Your task to perform on an android device: Open settings Image 0: 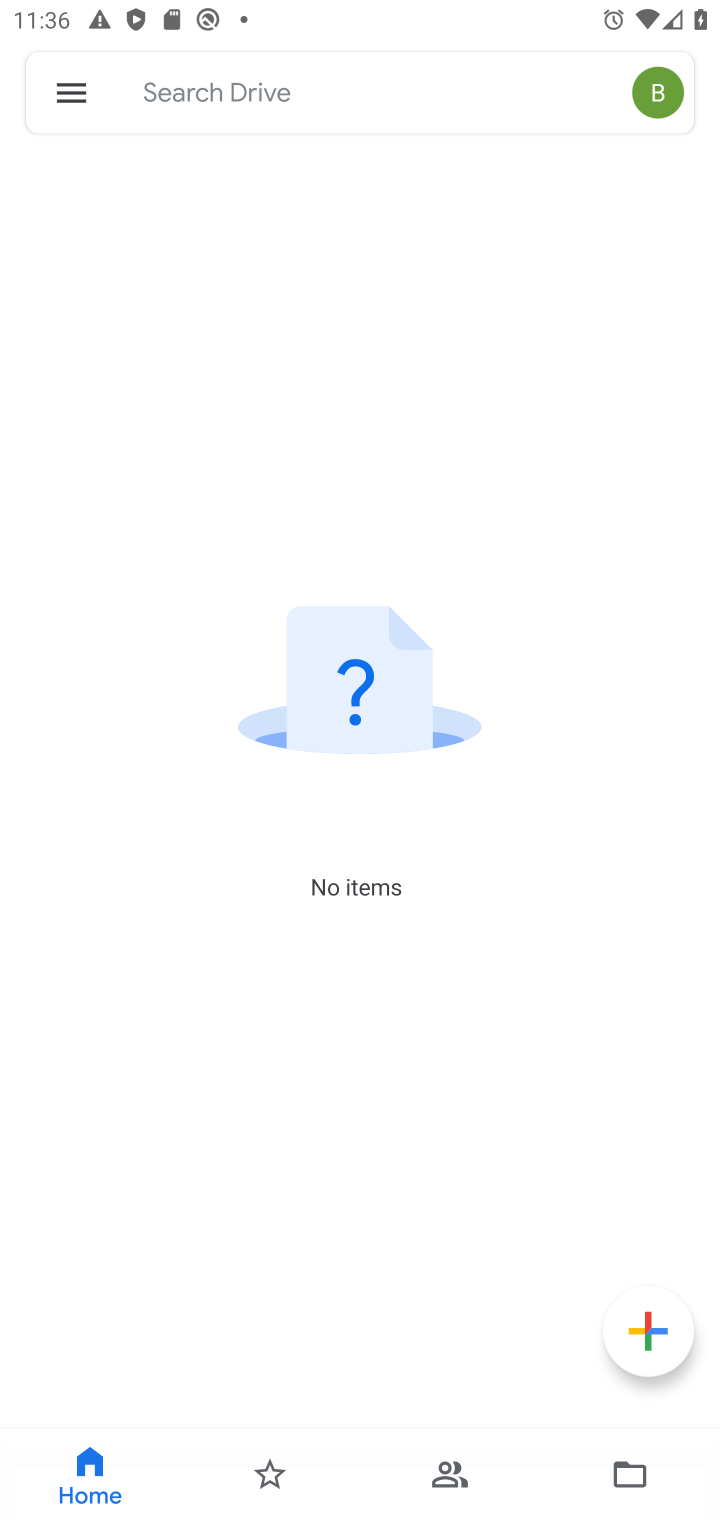
Step 0: press home button
Your task to perform on an android device: Open settings Image 1: 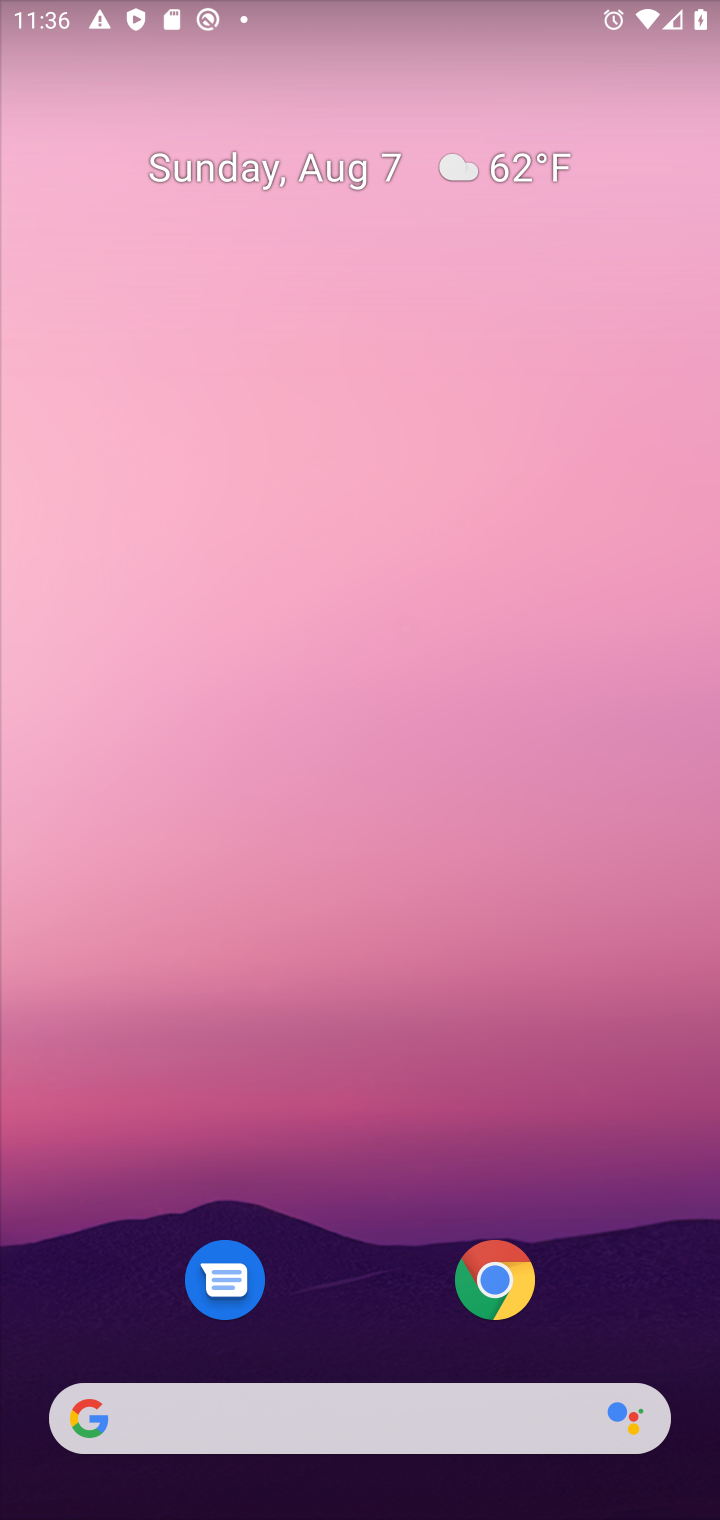
Step 1: drag from (379, 1321) to (391, 297)
Your task to perform on an android device: Open settings Image 2: 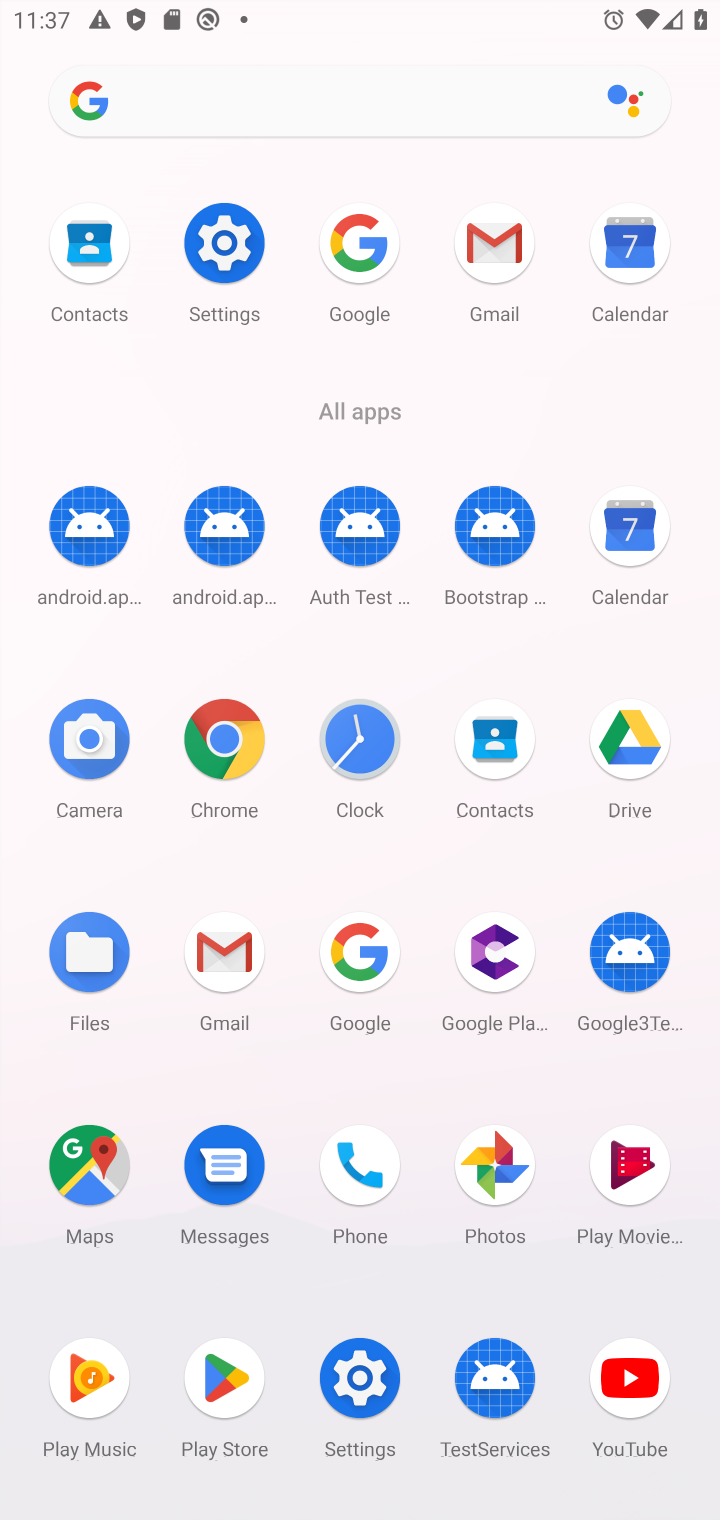
Step 2: click (236, 251)
Your task to perform on an android device: Open settings Image 3: 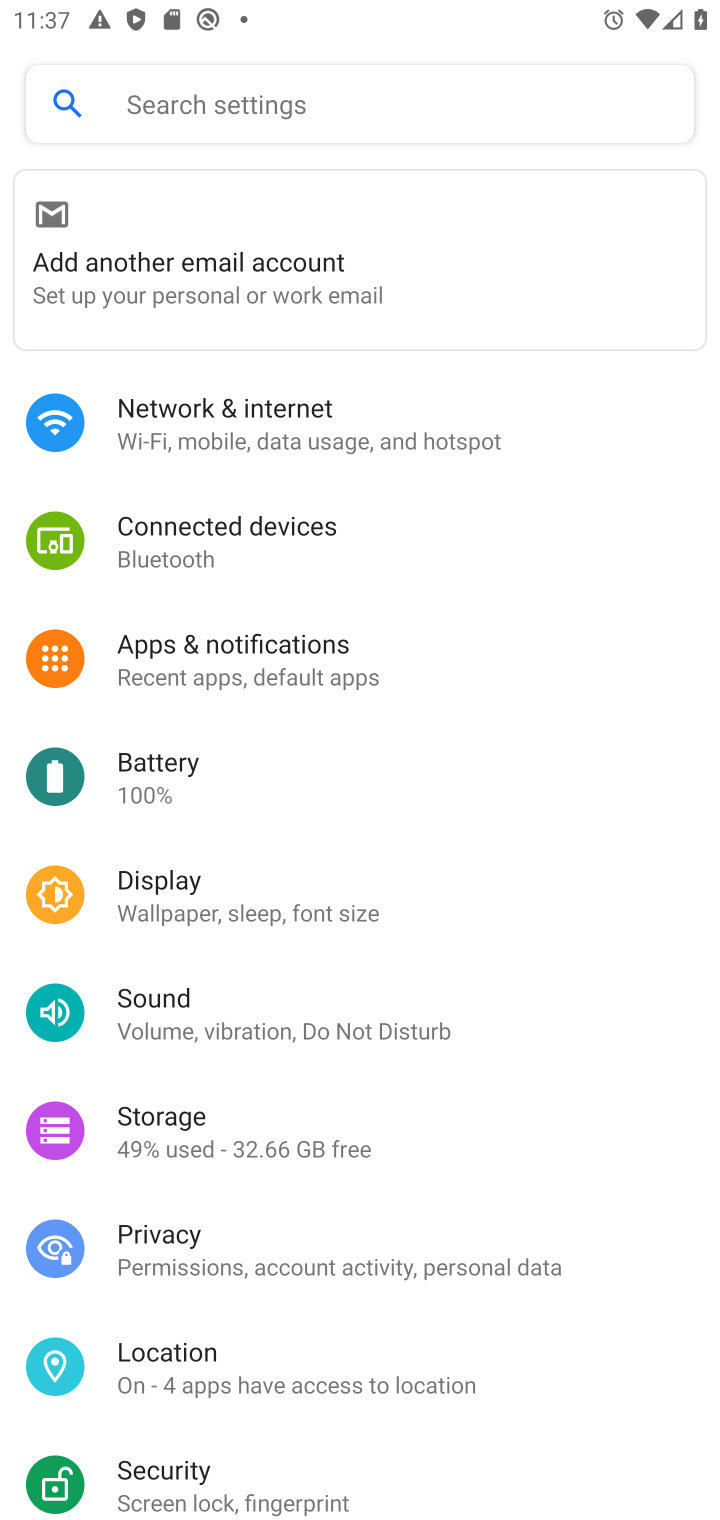
Step 3: task complete